Your task to perform on an android device: Open Google Maps Image 0: 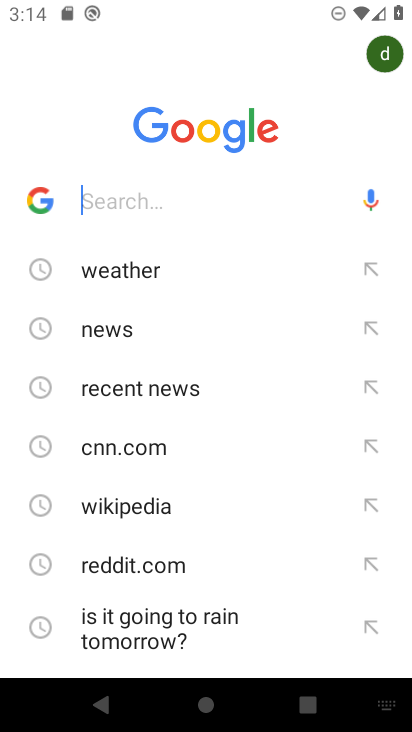
Step 0: press home button
Your task to perform on an android device: Open Google Maps Image 1: 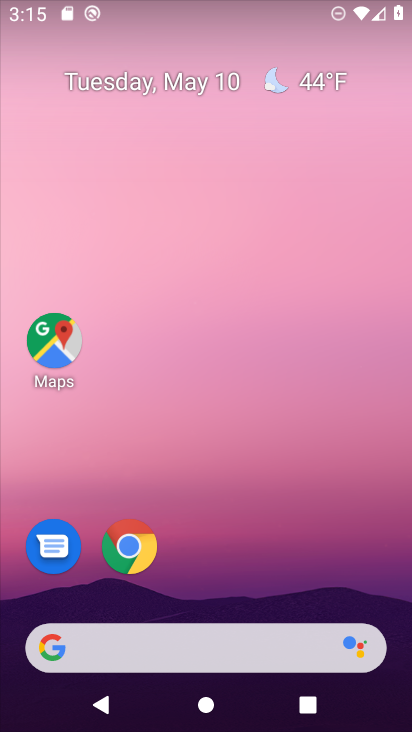
Step 1: drag from (260, 589) to (245, 44)
Your task to perform on an android device: Open Google Maps Image 2: 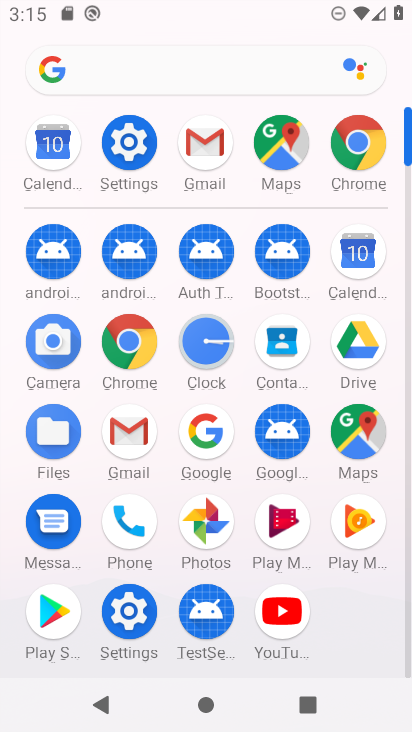
Step 2: click (291, 153)
Your task to perform on an android device: Open Google Maps Image 3: 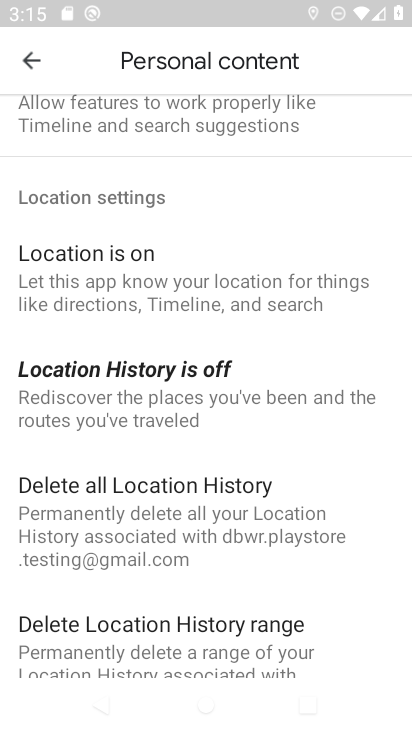
Step 3: task complete